Your task to perform on an android device: Search for seafood restaurants on Google Maps Image 0: 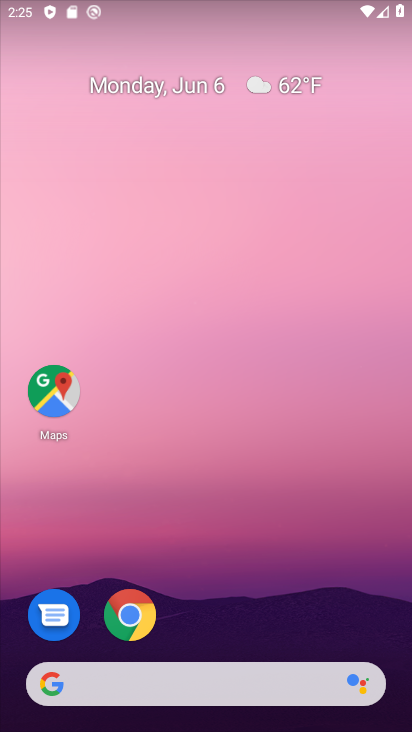
Step 0: drag from (170, 681) to (217, 125)
Your task to perform on an android device: Search for seafood restaurants on Google Maps Image 1: 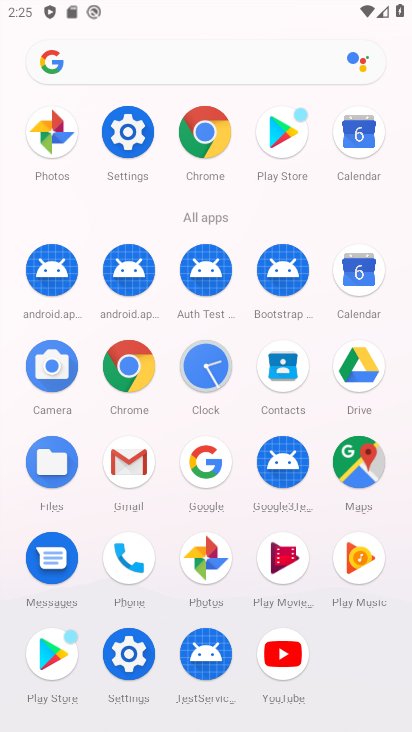
Step 1: click (347, 467)
Your task to perform on an android device: Search for seafood restaurants on Google Maps Image 2: 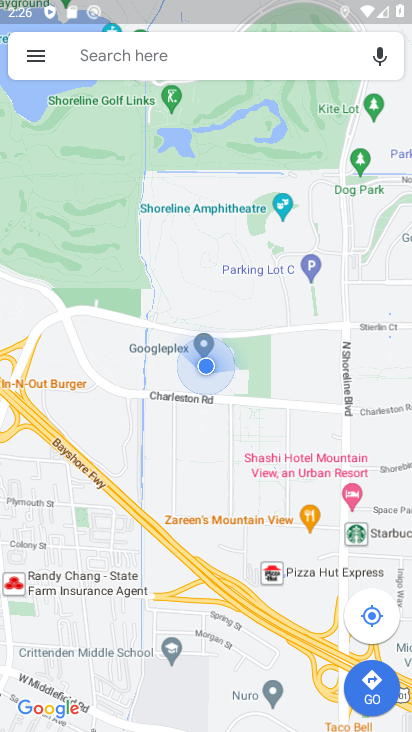
Step 2: click (159, 61)
Your task to perform on an android device: Search for seafood restaurants on Google Maps Image 3: 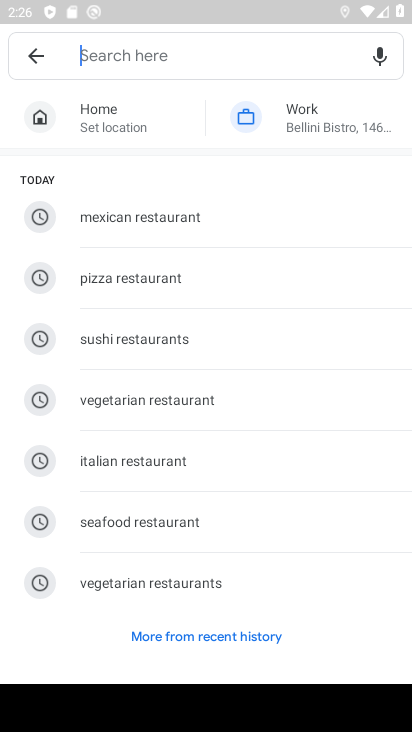
Step 3: click (163, 524)
Your task to perform on an android device: Search for seafood restaurants on Google Maps Image 4: 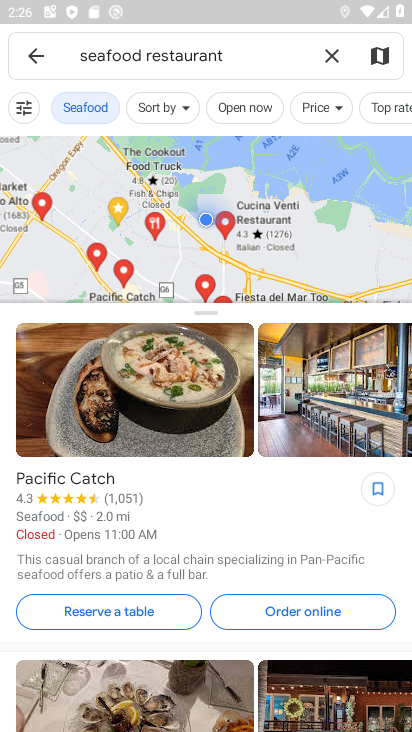
Step 4: task complete